Your task to perform on an android device: What's the weather going to be tomorrow? Image 0: 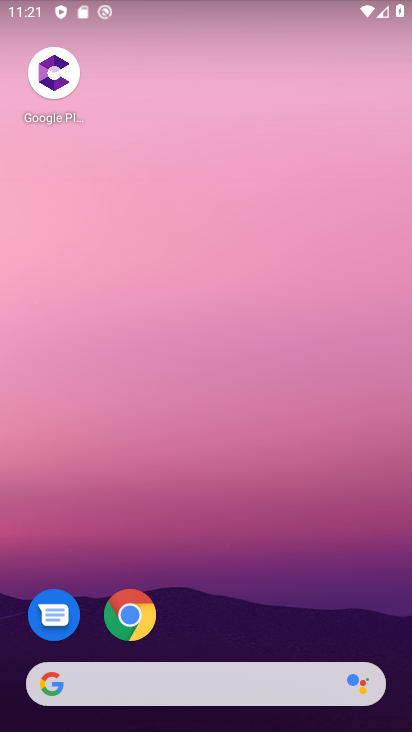
Step 0: press home button
Your task to perform on an android device: What's the weather going to be tomorrow? Image 1: 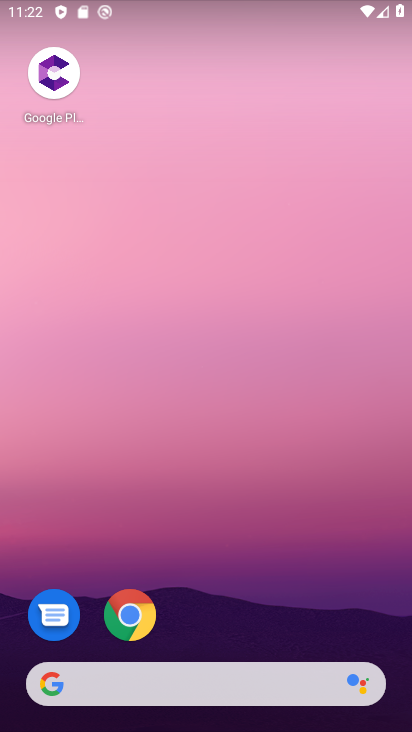
Step 1: drag from (306, 625) to (196, 60)
Your task to perform on an android device: What's the weather going to be tomorrow? Image 2: 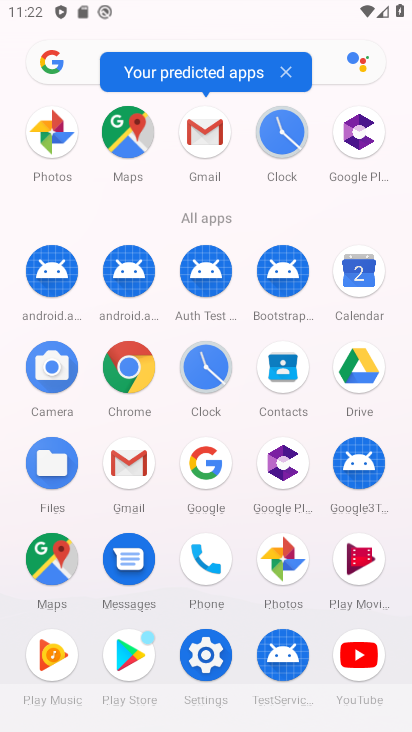
Step 2: click (213, 454)
Your task to perform on an android device: What's the weather going to be tomorrow? Image 3: 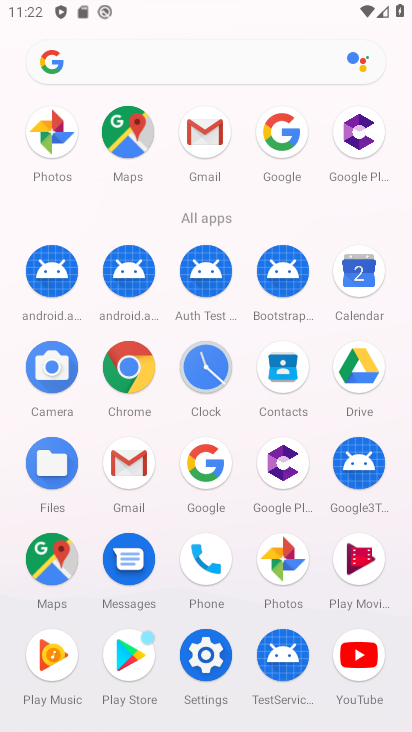
Step 3: click (194, 468)
Your task to perform on an android device: What's the weather going to be tomorrow? Image 4: 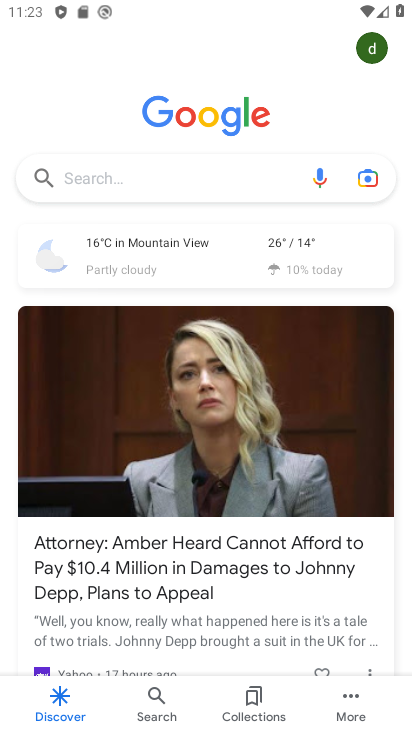
Step 4: click (286, 251)
Your task to perform on an android device: What's the weather going to be tomorrow? Image 5: 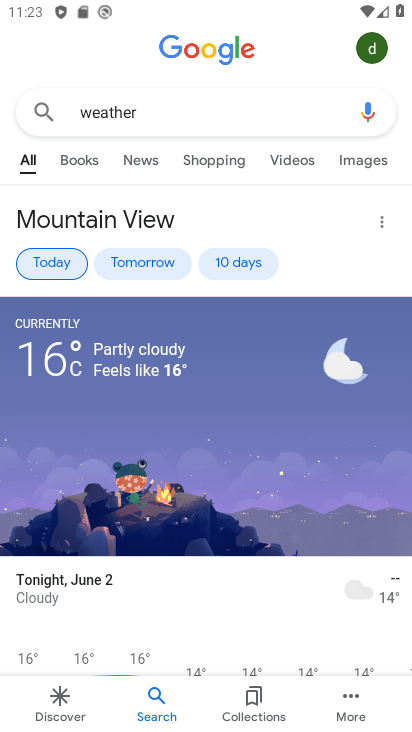
Step 5: click (152, 260)
Your task to perform on an android device: What's the weather going to be tomorrow? Image 6: 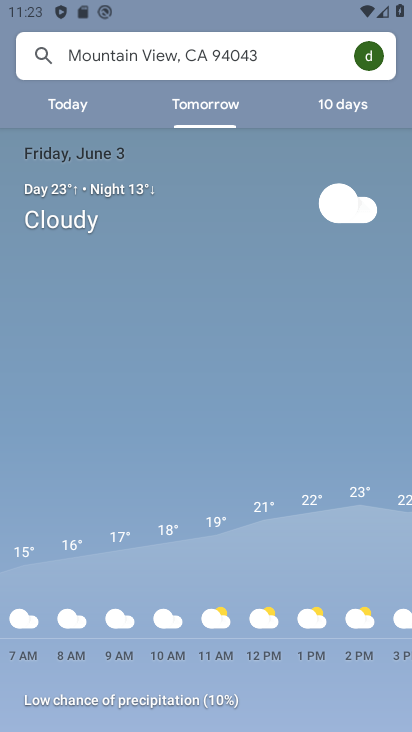
Step 6: task complete